Your task to perform on an android device: toggle data saver in the chrome app Image 0: 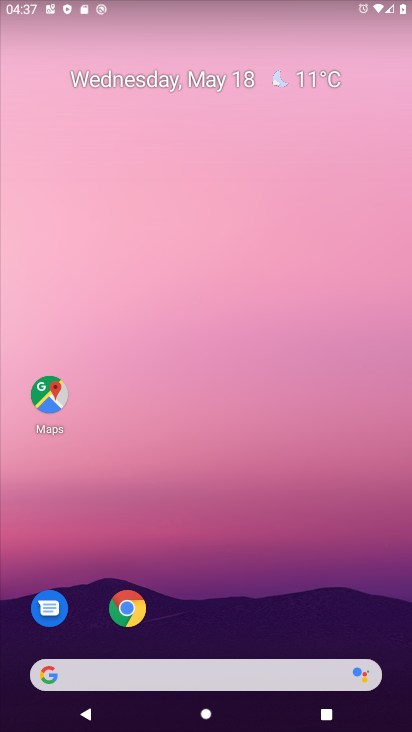
Step 0: click (124, 597)
Your task to perform on an android device: toggle data saver in the chrome app Image 1: 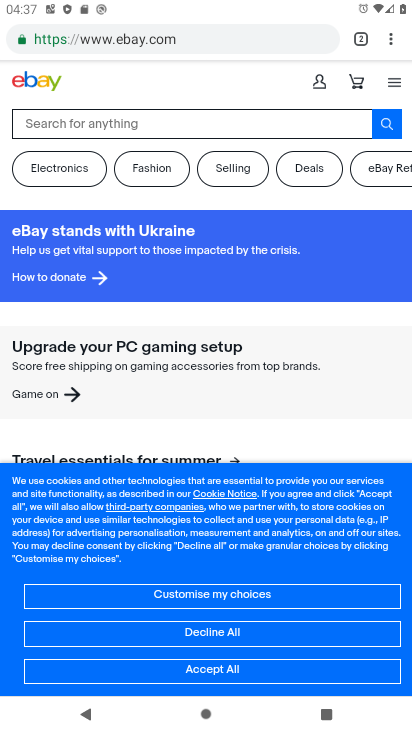
Step 1: click (397, 34)
Your task to perform on an android device: toggle data saver in the chrome app Image 2: 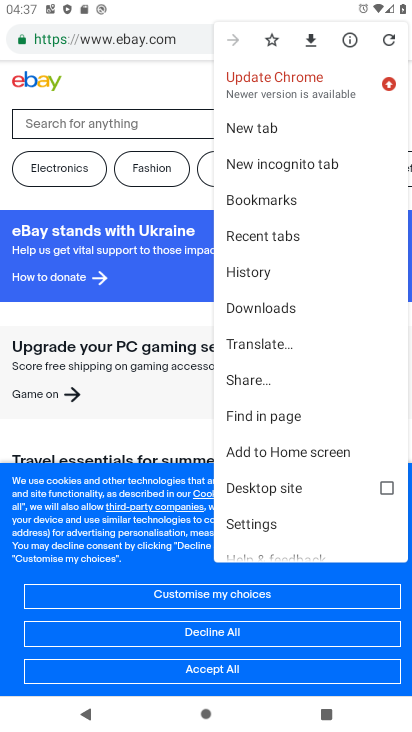
Step 2: click (259, 525)
Your task to perform on an android device: toggle data saver in the chrome app Image 3: 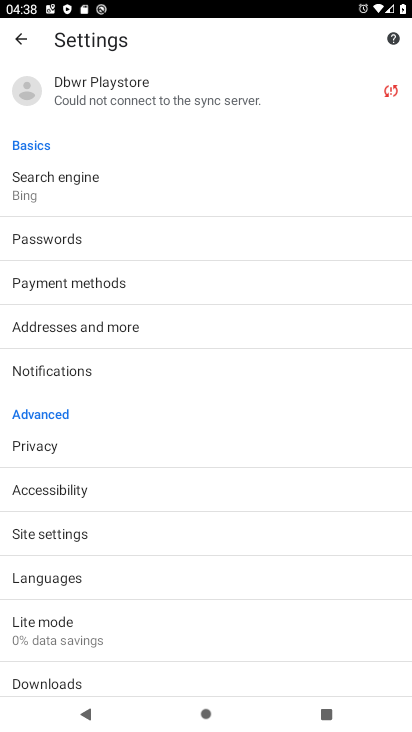
Step 3: click (79, 621)
Your task to perform on an android device: toggle data saver in the chrome app Image 4: 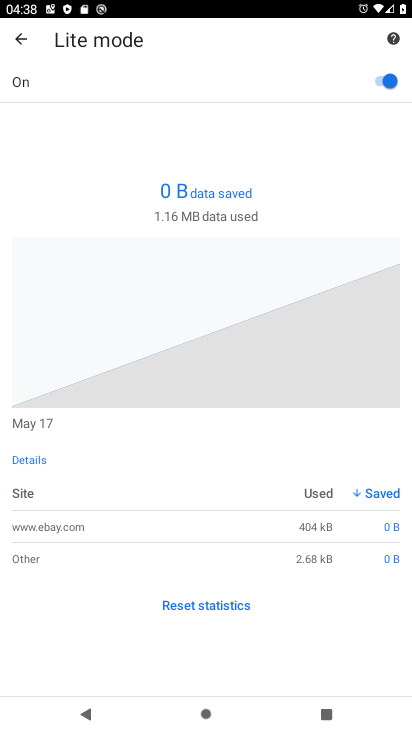
Step 4: click (386, 93)
Your task to perform on an android device: toggle data saver in the chrome app Image 5: 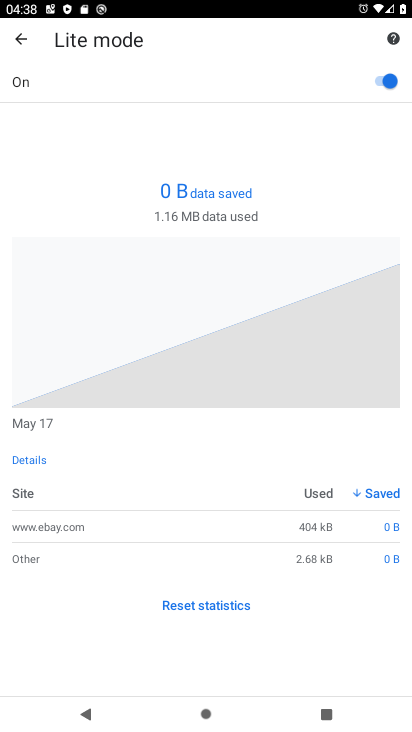
Step 5: click (386, 93)
Your task to perform on an android device: toggle data saver in the chrome app Image 6: 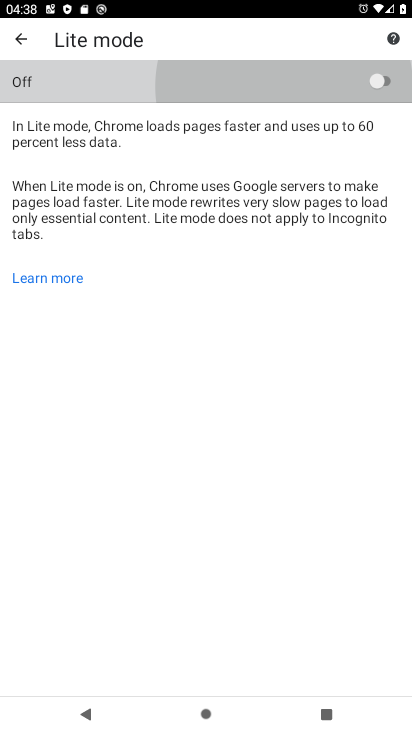
Step 6: click (386, 93)
Your task to perform on an android device: toggle data saver in the chrome app Image 7: 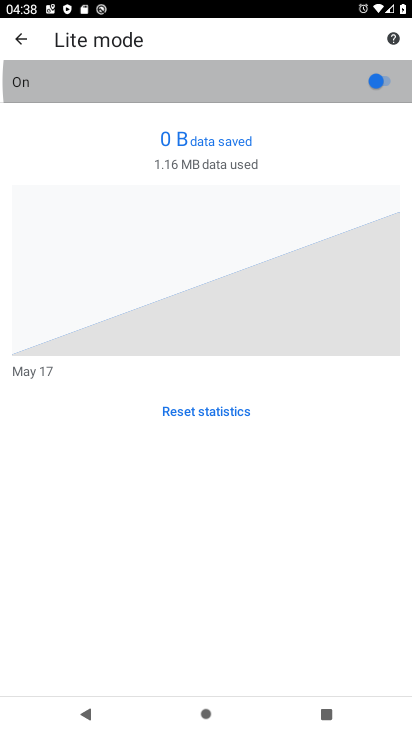
Step 7: click (386, 93)
Your task to perform on an android device: toggle data saver in the chrome app Image 8: 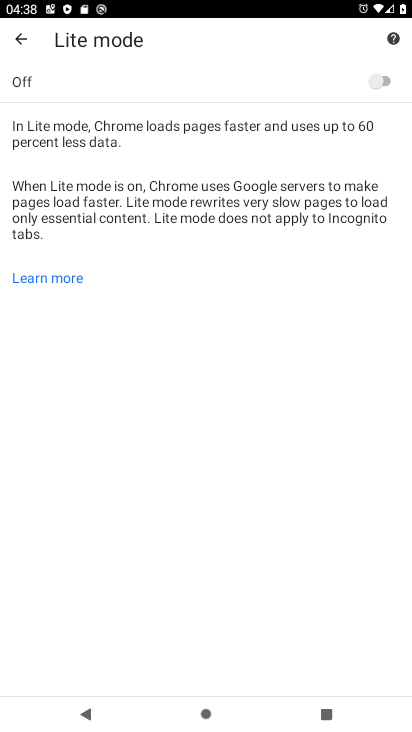
Step 8: task complete